Your task to perform on an android device: check data usage Image 0: 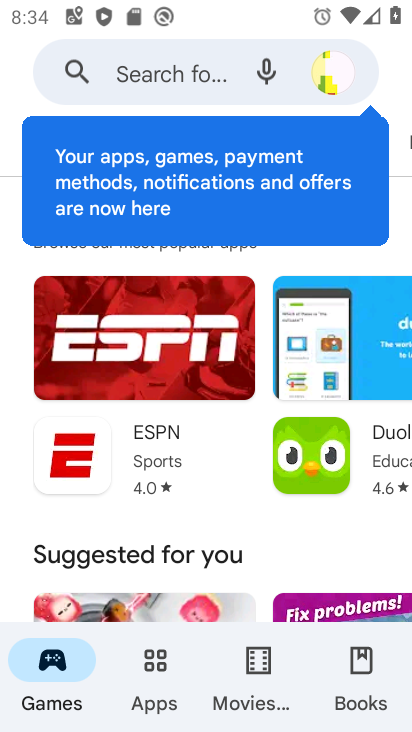
Step 0: press home button
Your task to perform on an android device: check data usage Image 1: 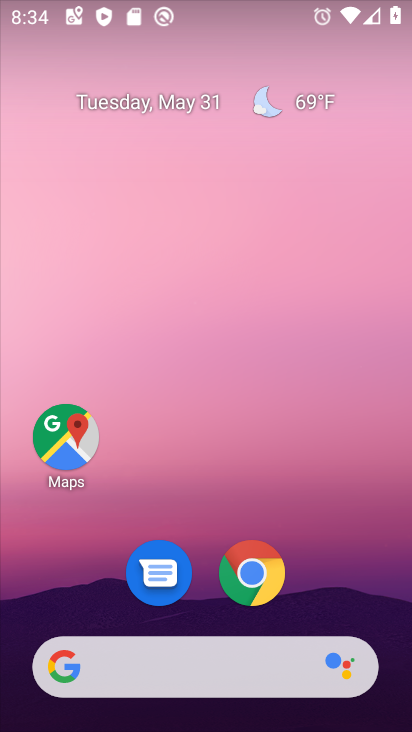
Step 1: drag from (208, 519) to (254, 114)
Your task to perform on an android device: check data usage Image 2: 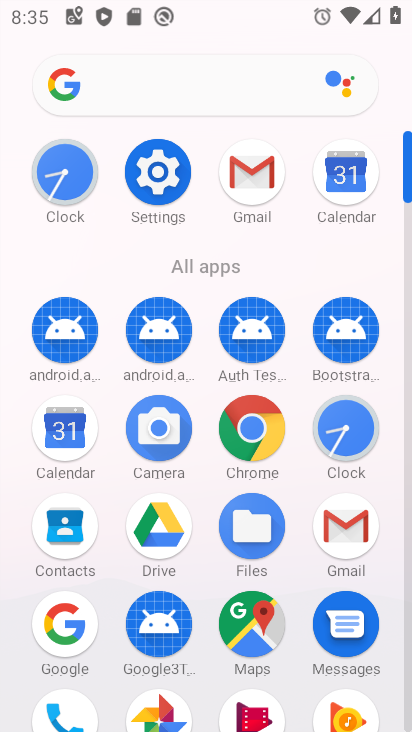
Step 2: click (151, 186)
Your task to perform on an android device: check data usage Image 3: 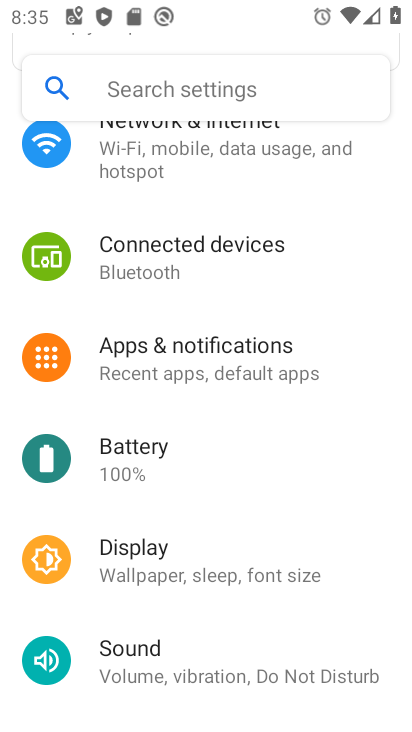
Step 3: drag from (223, 177) to (217, 655)
Your task to perform on an android device: check data usage Image 4: 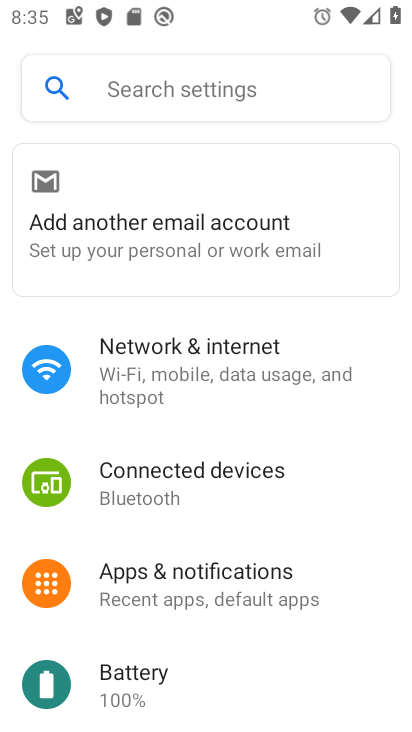
Step 4: click (237, 376)
Your task to perform on an android device: check data usage Image 5: 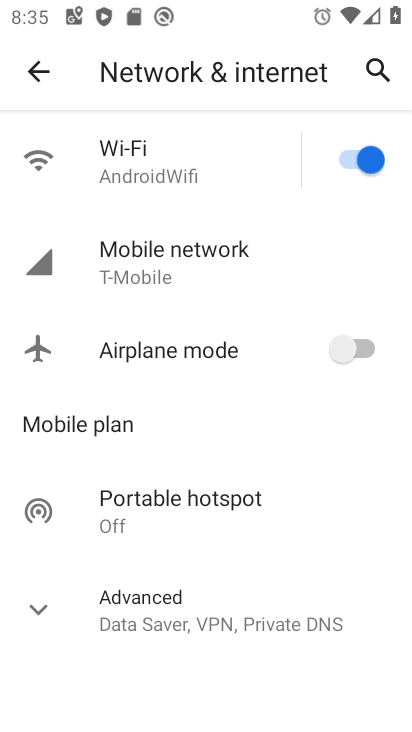
Step 5: click (222, 257)
Your task to perform on an android device: check data usage Image 6: 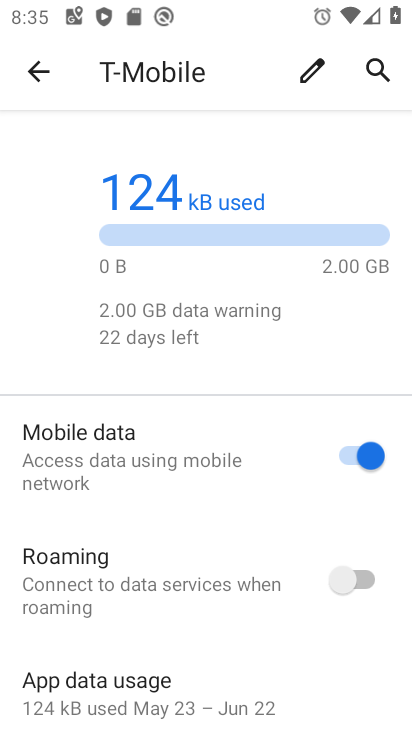
Step 6: task complete